Your task to perform on an android device: Open eBay Image 0: 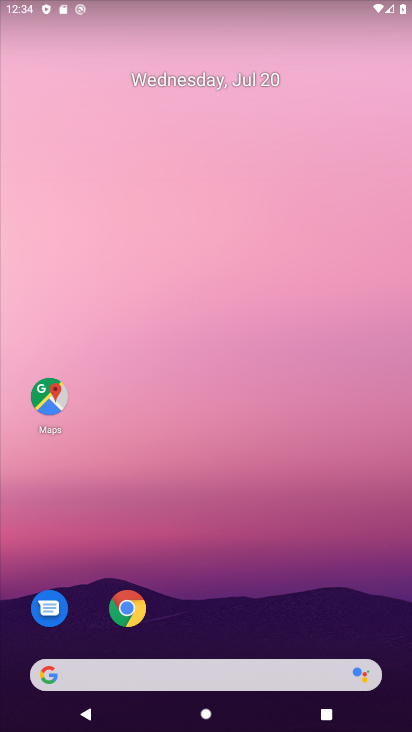
Step 0: drag from (272, 658) to (271, 237)
Your task to perform on an android device: Open eBay Image 1: 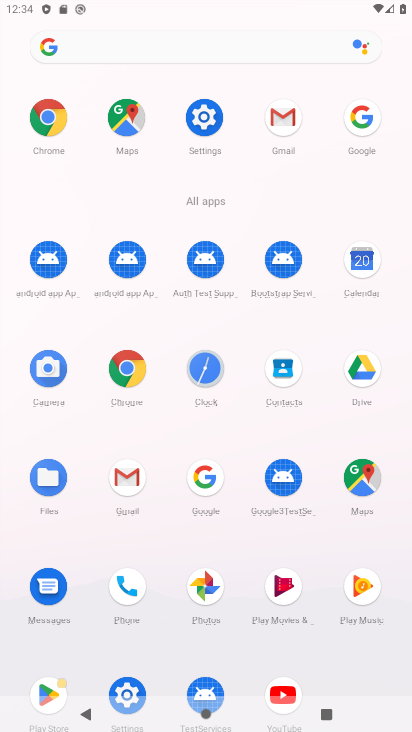
Step 1: click (124, 372)
Your task to perform on an android device: Open eBay Image 2: 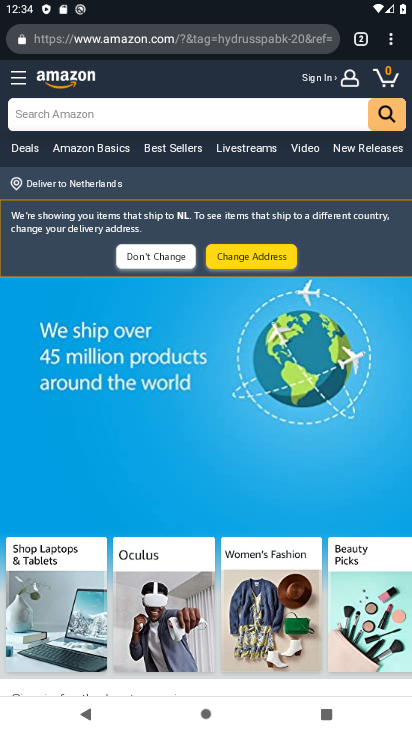
Step 2: click (365, 42)
Your task to perform on an android device: Open eBay Image 3: 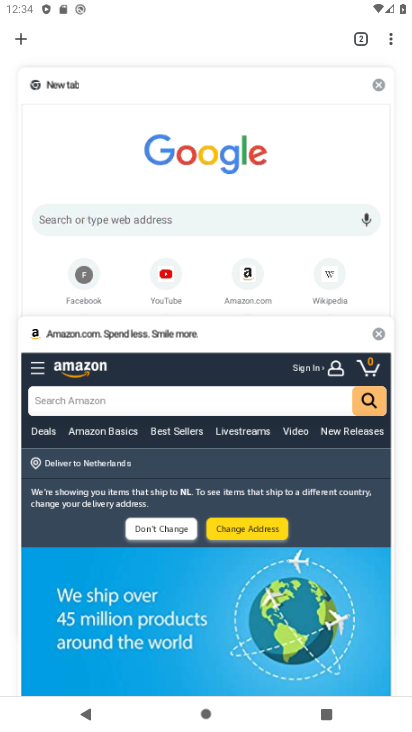
Step 3: click (375, 88)
Your task to perform on an android device: Open eBay Image 4: 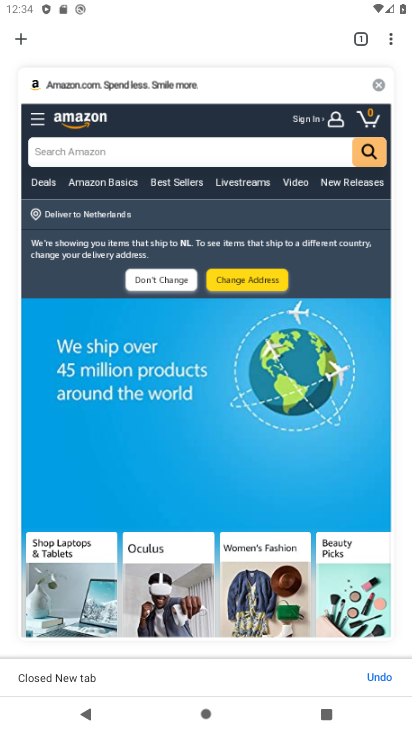
Step 4: click (374, 86)
Your task to perform on an android device: Open eBay Image 5: 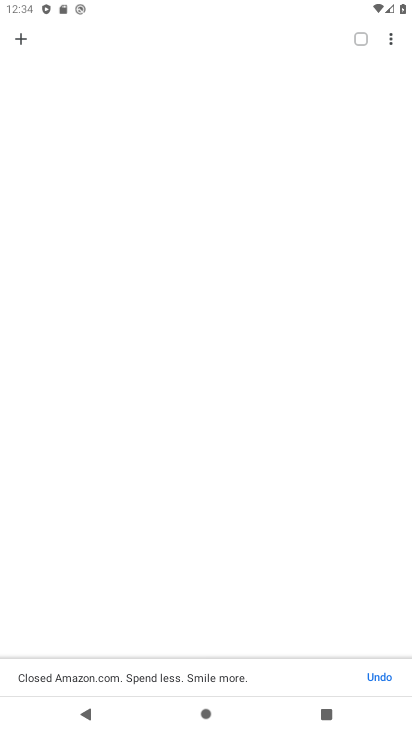
Step 5: click (21, 38)
Your task to perform on an android device: Open eBay Image 6: 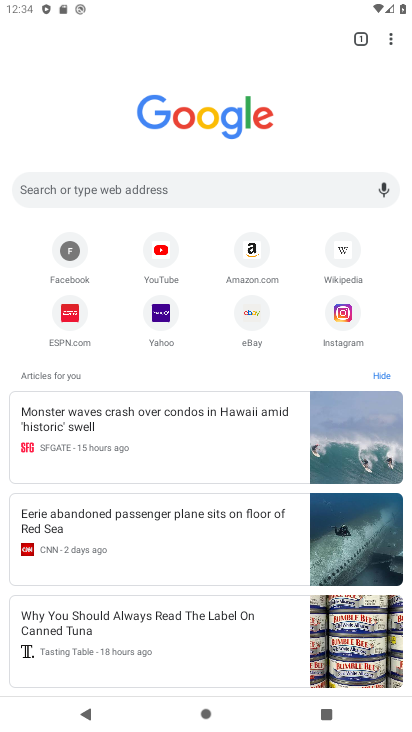
Step 6: click (258, 303)
Your task to perform on an android device: Open eBay Image 7: 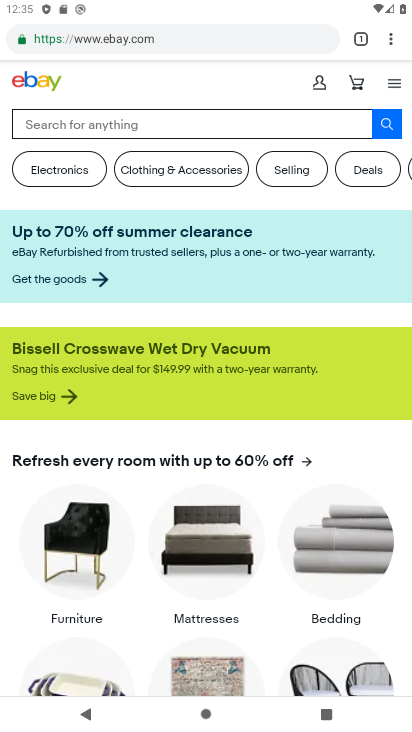
Step 7: task complete